Your task to perform on an android device: When is my next meeting? Image 0: 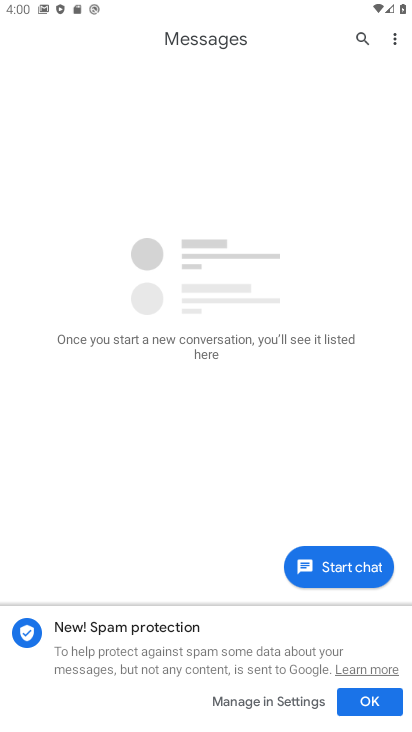
Step 0: press home button
Your task to perform on an android device: When is my next meeting? Image 1: 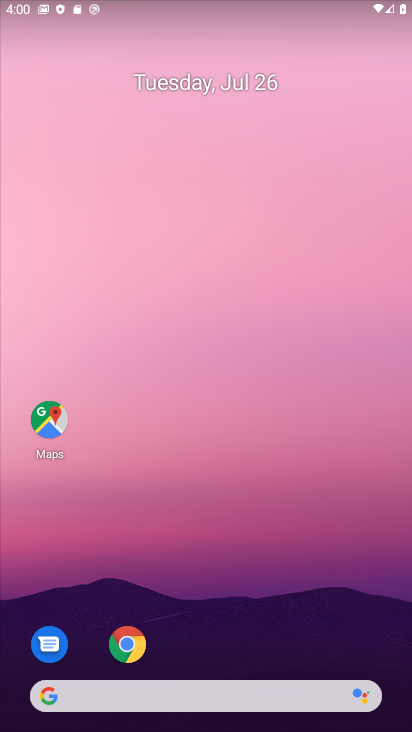
Step 1: drag from (376, 646) to (344, 245)
Your task to perform on an android device: When is my next meeting? Image 2: 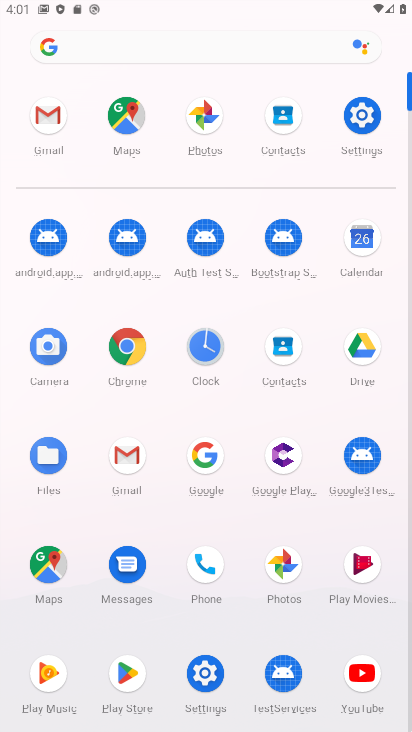
Step 2: click (360, 236)
Your task to perform on an android device: When is my next meeting? Image 3: 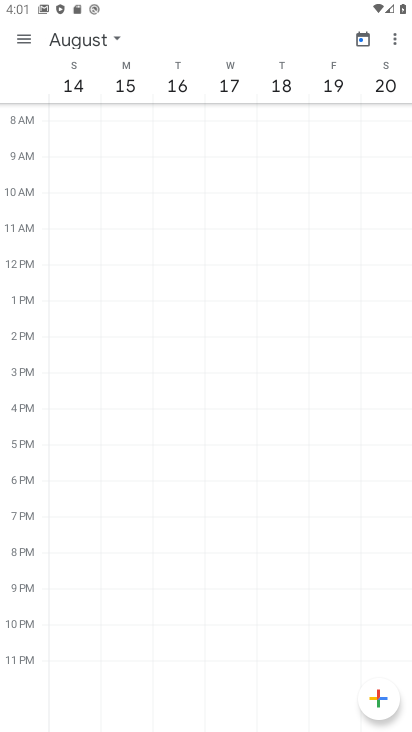
Step 3: click (25, 36)
Your task to perform on an android device: When is my next meeting? Image 4: 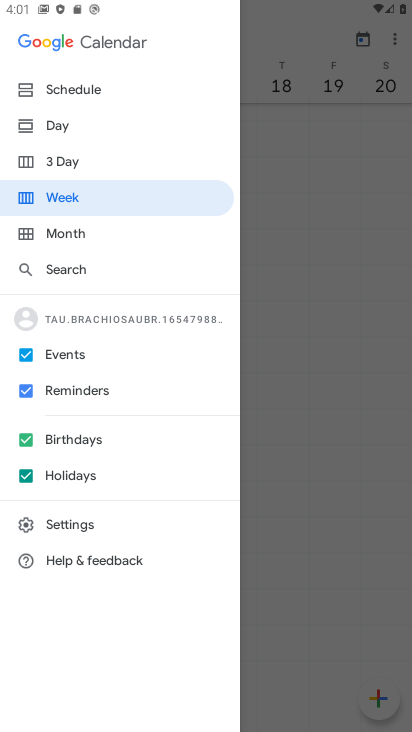
Step 4: click (60, 92)
Your task to perform on an android device: When is my next meeting? Image 5: 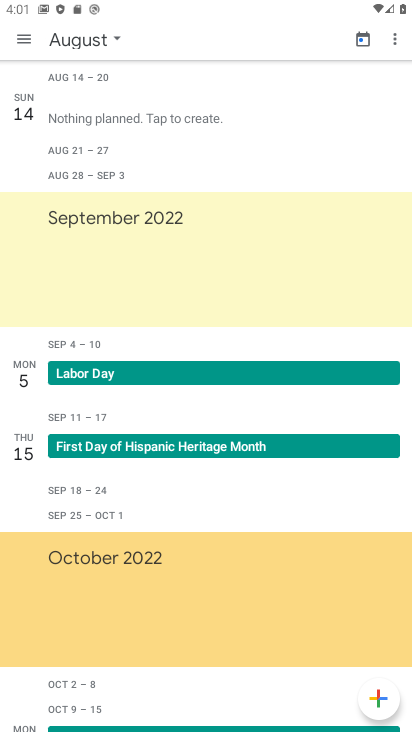
Step 5: task complete